Your task to perform on an android device: open app "Adobe Acrobat Reader" (install if not already installed) and enter user name: "nondescriptly@inbox.com" and password: "negating" Image 0: 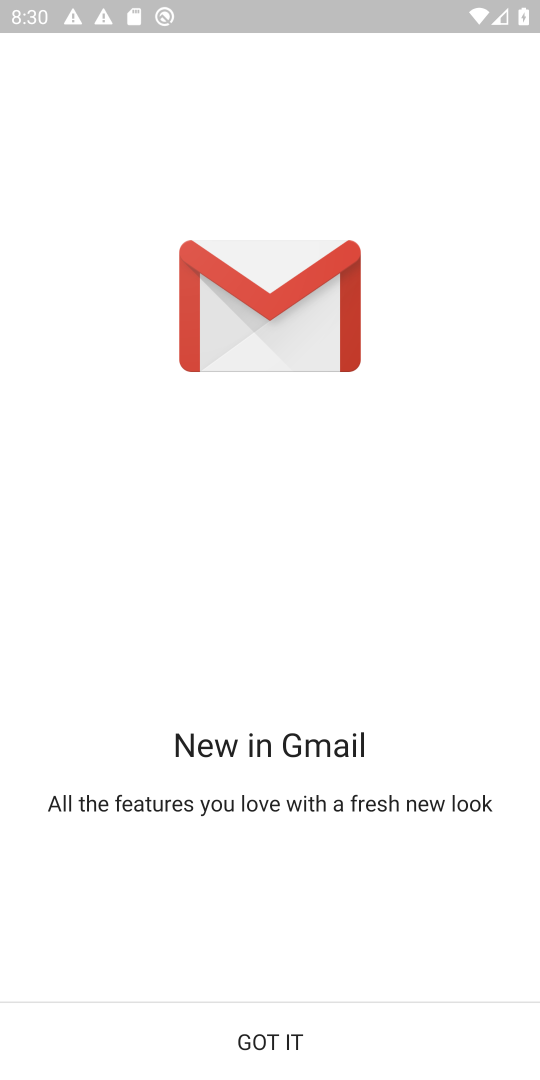
Step 0: press home button
Your task to perform on an android device: open app "Adobe Acrobat Reader" (install if not already installed) and enter user name: "nondescriptly@inbox.com" and password: "negating" Image 1: 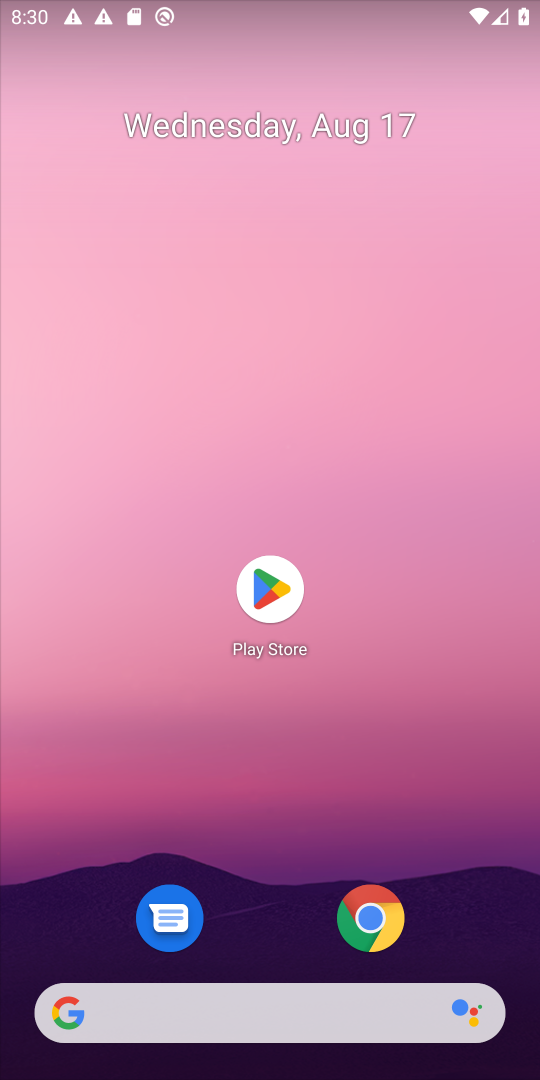
Step 1: click (248, 592)
Your task to perform on an android device: open app "Adobe Acrobat Reader" (install if not already installed) and enter user name: "nondescriptly@inbox.com" and password: "negating" Image 2: 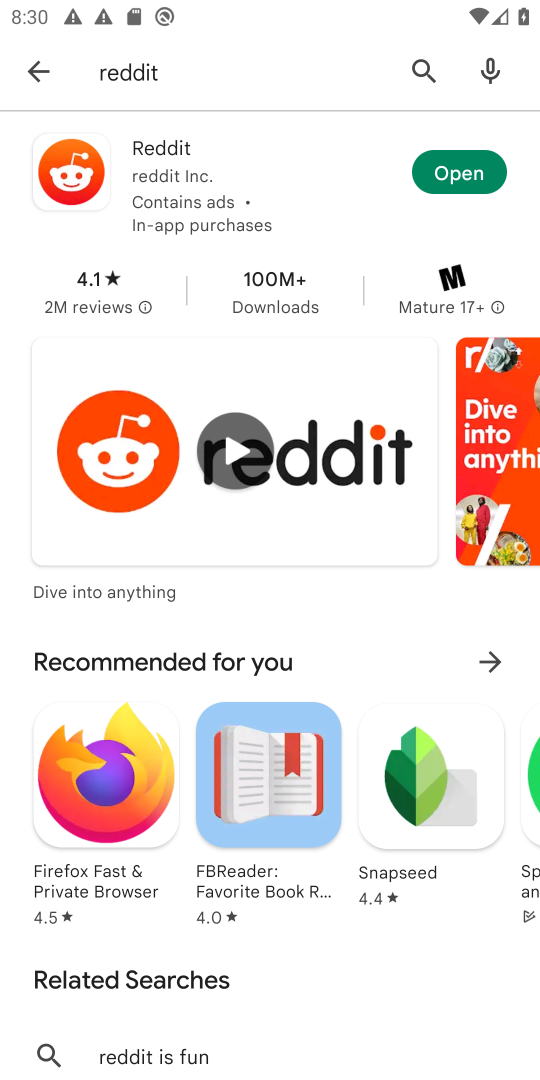
Step 2: click (418, 66)
Your task to perform on an android device: open app "Adobe Acrobat Reader" (install if not already installed) and enter user name: "nondescriptly@inbox.com" and password: "negating" Image 3: 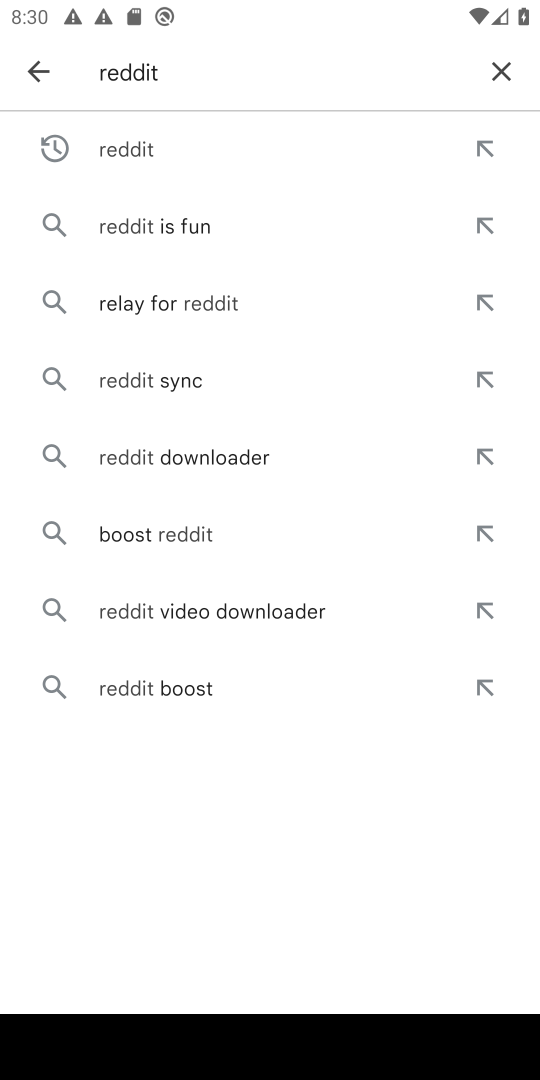
Step 3: click (503, 65)
Your task to perform on an android device: open app "Adobe Acrobat Reader" (install if not already installed) and enter user name: "nondescriptly@inbox.com" and password: "negating" Image 4: 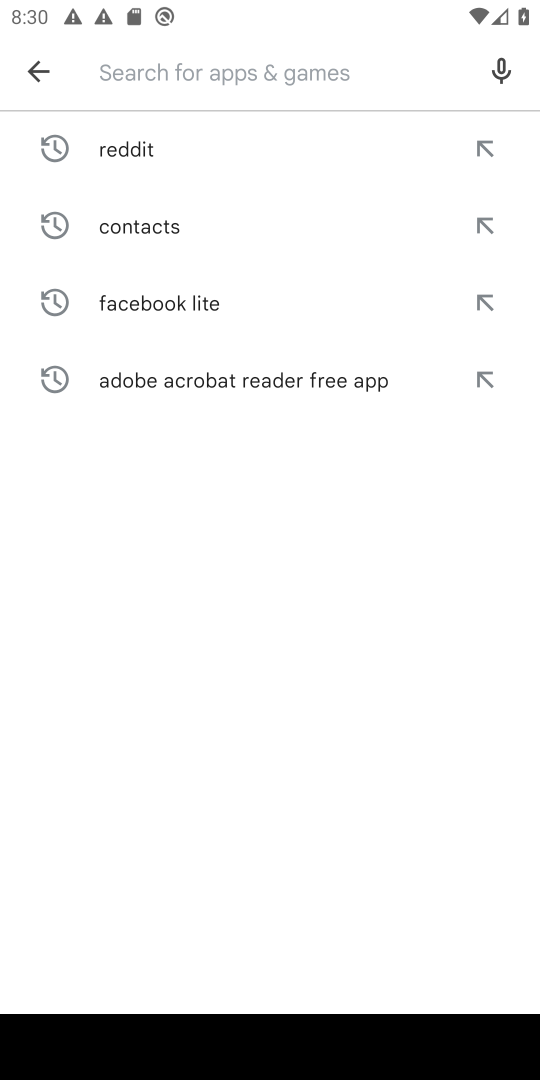
Step 4: type "Adobe Acrobat Reader"
Your task to perform on an android device: open app "Adobe Acrobat Reader" (install if not already installed) and enter user name: "nondescriptly@inbox.com" and password: "negating" Image 5: 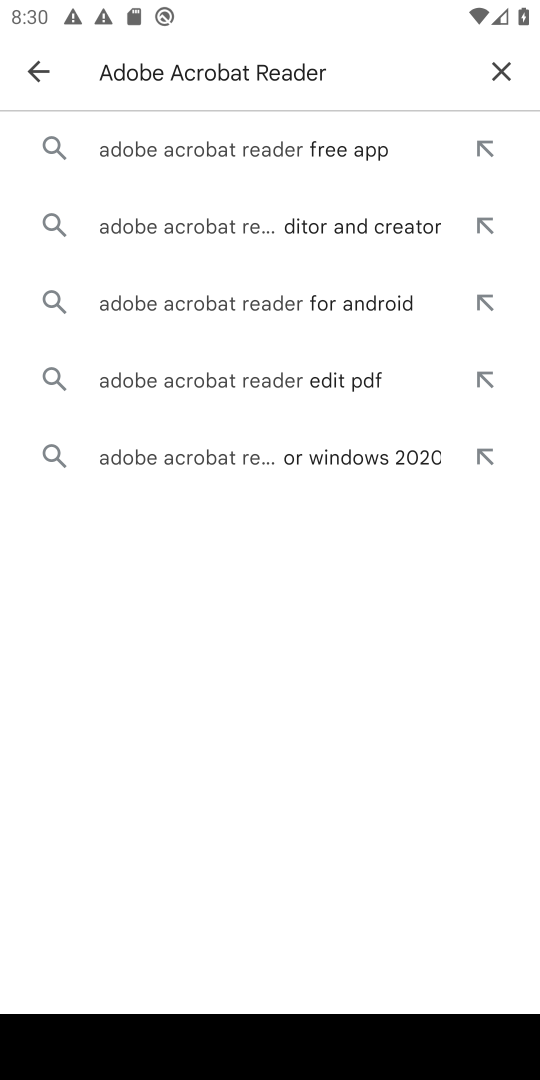
Step 5: type "\"
Your task to perform on an android device: open app "Adobe Acrobat Reader" (install if not already installed) and enter user name: "nondescriptly@inbox.com" and password: "negating" Image 6: 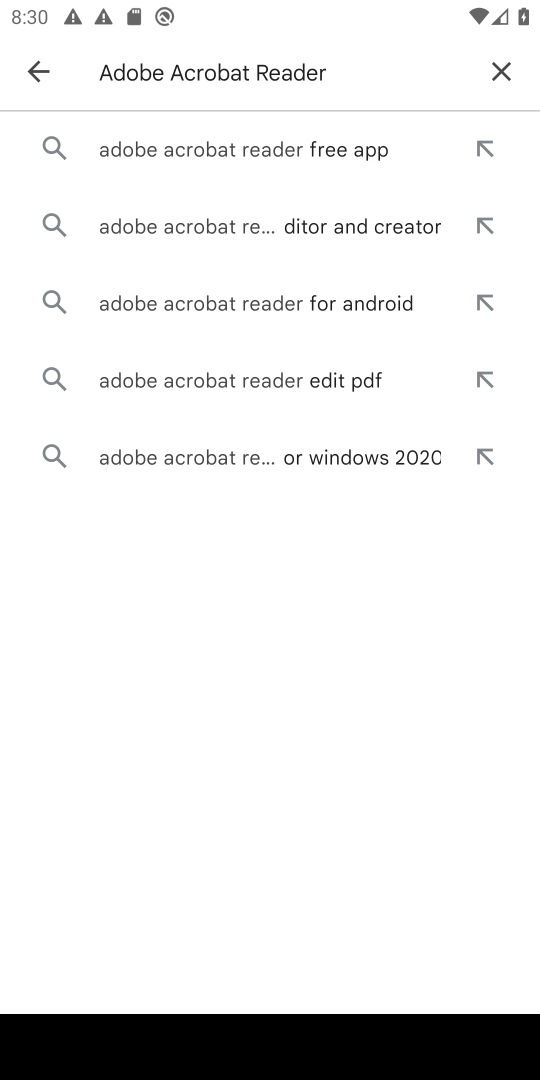
Step 6: click (260, 156)
Your task to perform on an android device: open app "Adobe Acrobat Reader" (install if not already installed) and enter user name: "nondescriptly@inbox.com" and password: "negating" Image 7: 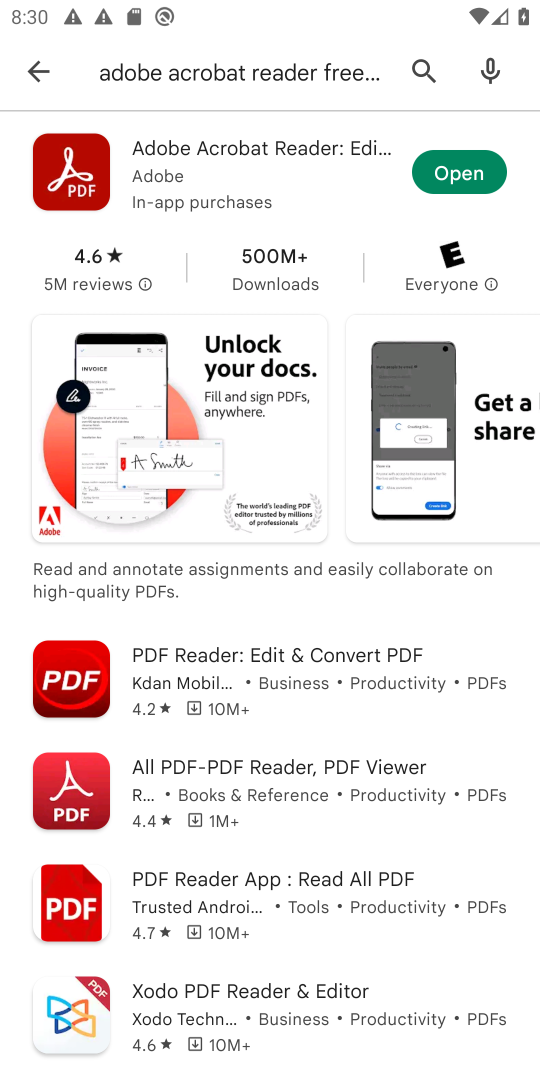
Step 7: click (467, 175)
Your task to perform on an android device: open app "Adobe Acrobat Reader" (install if not already installed) and enter user name: "nondescriptly@inbox.com" and password: "negating" Image 8: 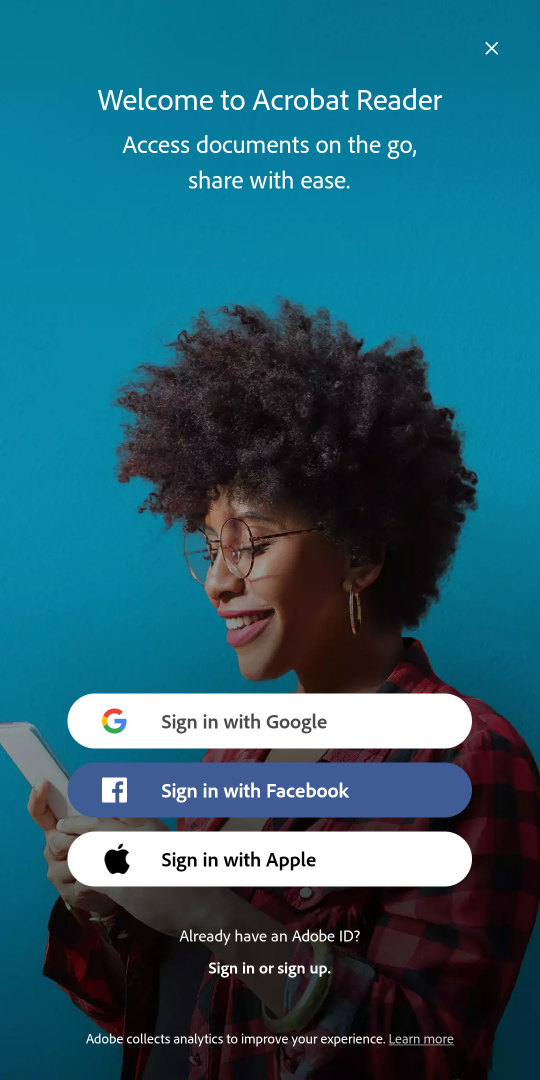
Step 8: click (276, 956)
Your task to perform on an android device: open app "Adobe Acrobat Reader" (install if not already installed) and enter user name: "nondescriptly@inbox.com" and password: "negating" Image 9: 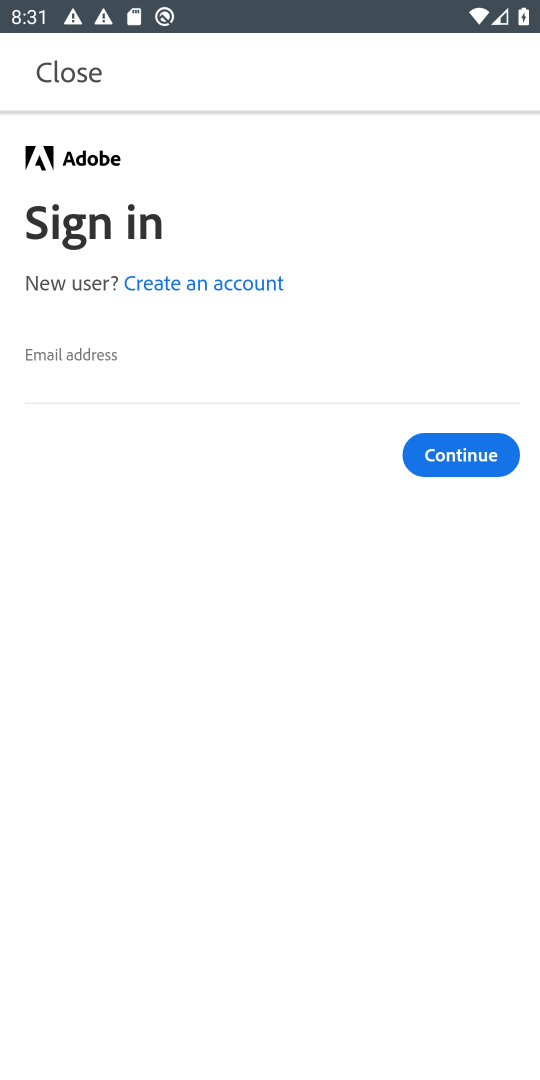
Step 9: click (104, 363)
Your task to perform on an android device: open app "Adobe Acrobat Reader" (install if not already installed) and enter user name: "nondescriptly@inbox.com" and password: "negating" Image 10: 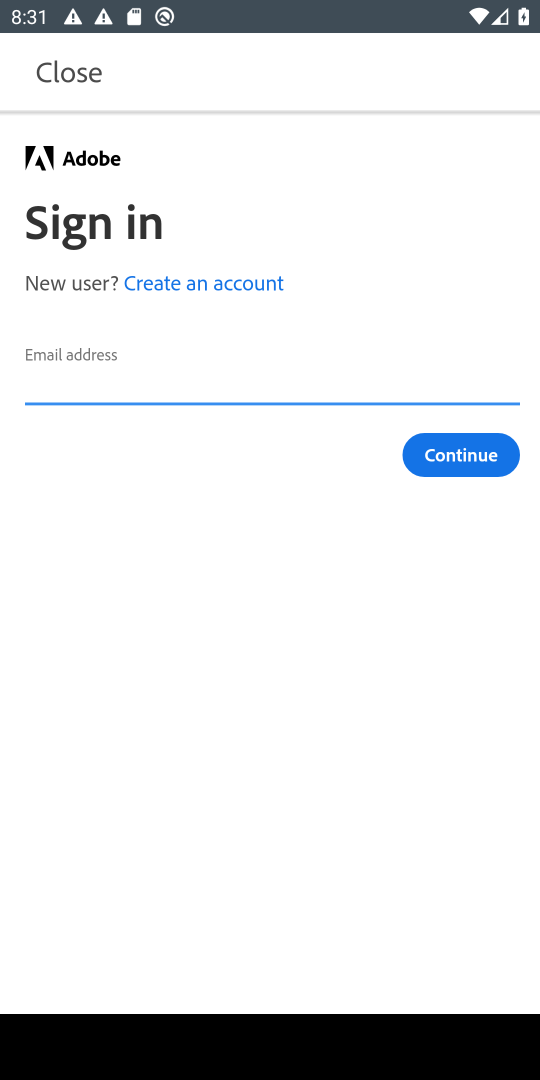
Step 10: type "nondescriptly@inbox.com"
Your task to perform on an android device: open app "Adobe Acrobat Reader" (install if not already installed) and enter user name: "nondescriptly@inbox.com" and password: "negating" Image 11: 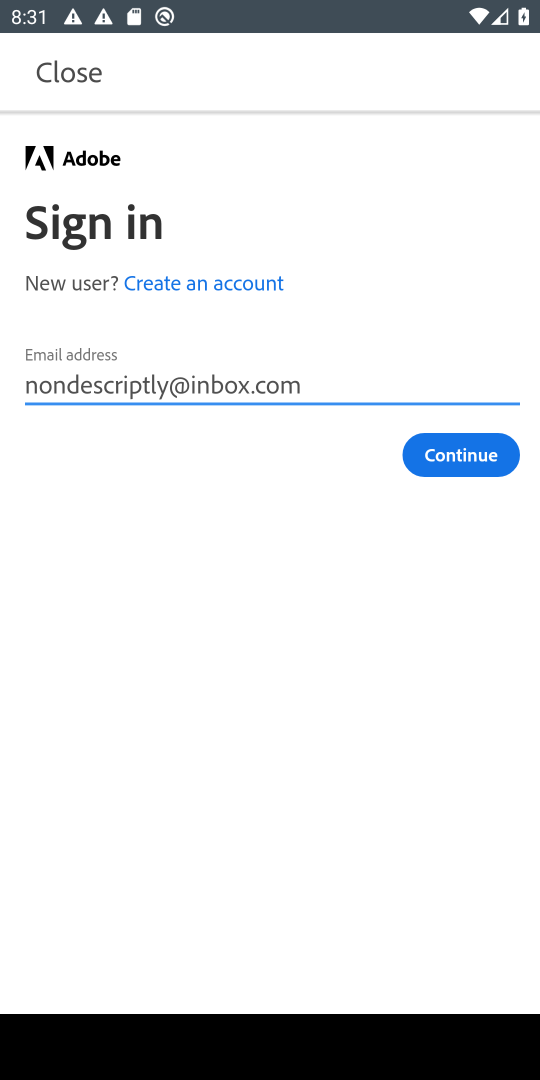
Step 11: click (462, 444)
Your task to perform on an android device: open app "Adobe Acrobat Reader" (install if not already installed) and enter user name: "nondescriptly@inbox.com" and password: "negating" Image 12: 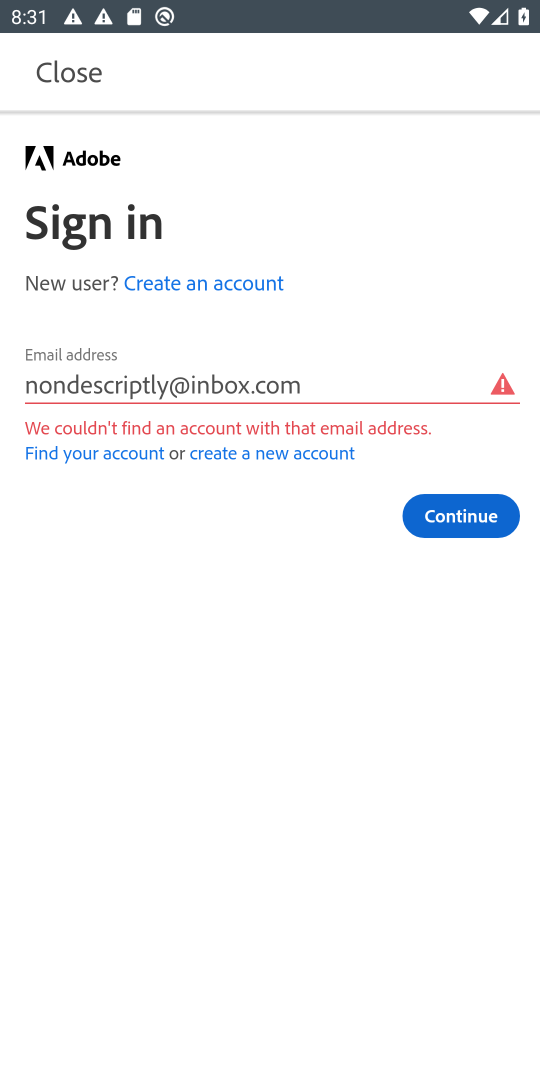
Step 12: task complete